Your task to perform on an android device: turn off priority inbox in the gmail app Image 0: 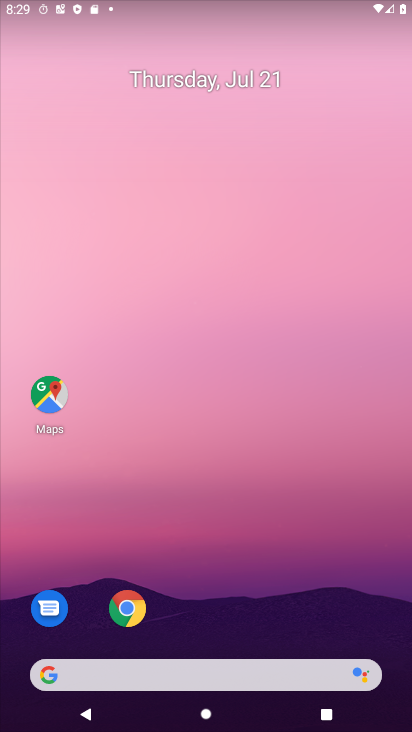
Step 0: drag from (259, 595) to (185, 11)
Your task to perform on an android device: turn off priority inbox in the gmail app Image 1: 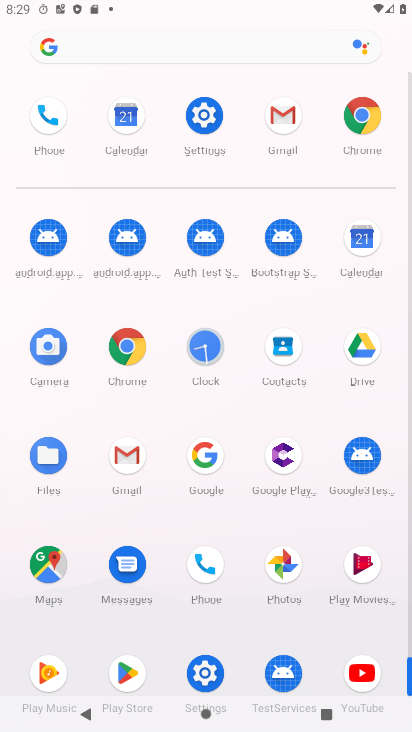
Step 1: click (284, 109)
Your task to perform on an android device: turn off priority inbox in the gmail app Image 2: 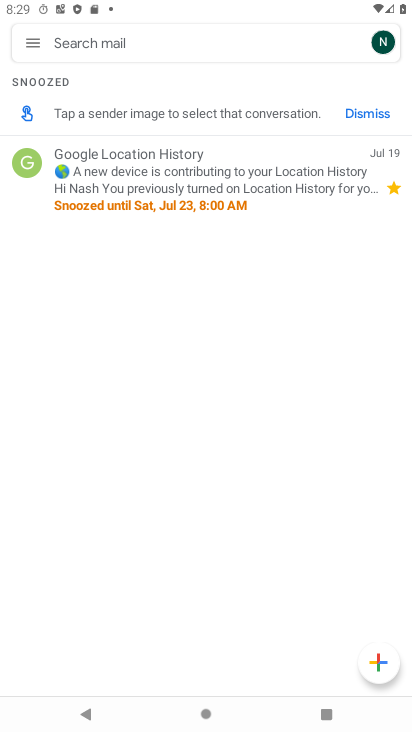
Step 2: click (37, 42)
Your task to perform on an android device: turn off priority inbox in the gmail app Image 3: 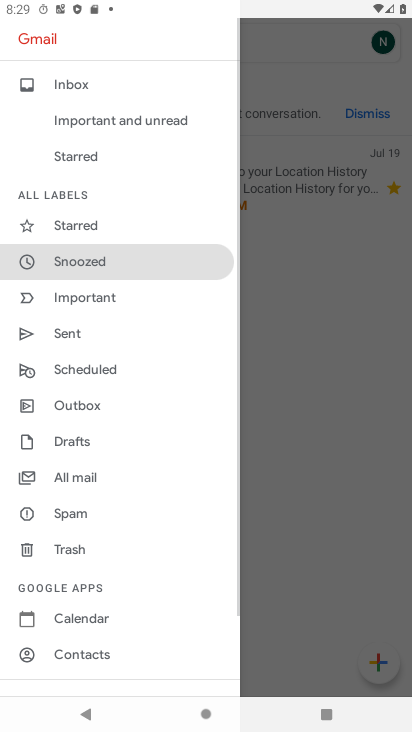
Step 3: drag from (72, 655) to (207, 146)
Your task to perform on an android device: turn off priority inbox in the gmail app Image 4: 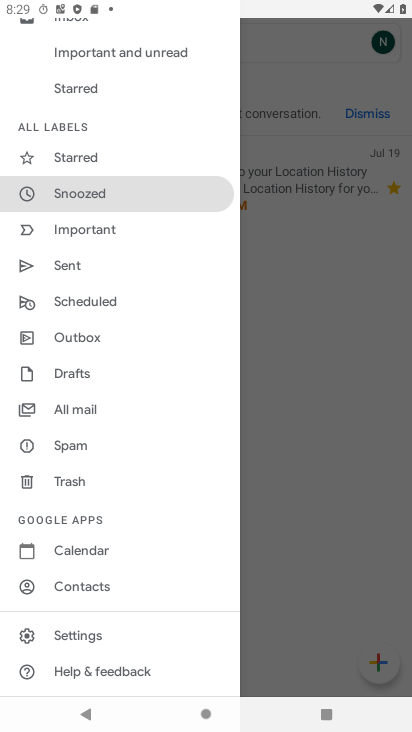
Step 4: click (20, 637)
Your task to perform on an android device: turn off priority inbox in the gmail app Image 5: 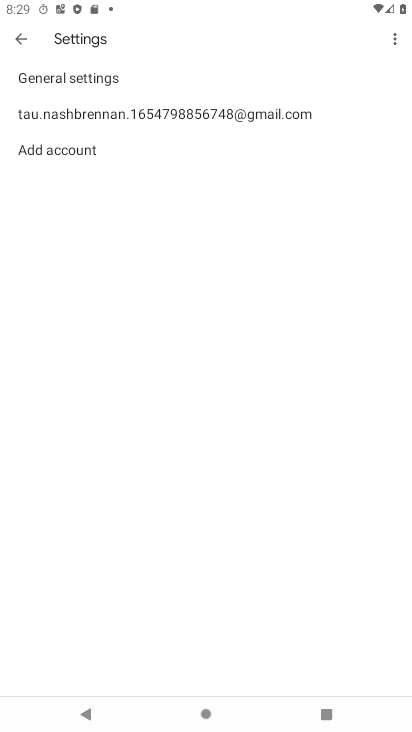
Step 5: click (196, 106)
Your task to perform on an android device: turn off priority inbox in the gmail app Image 6: 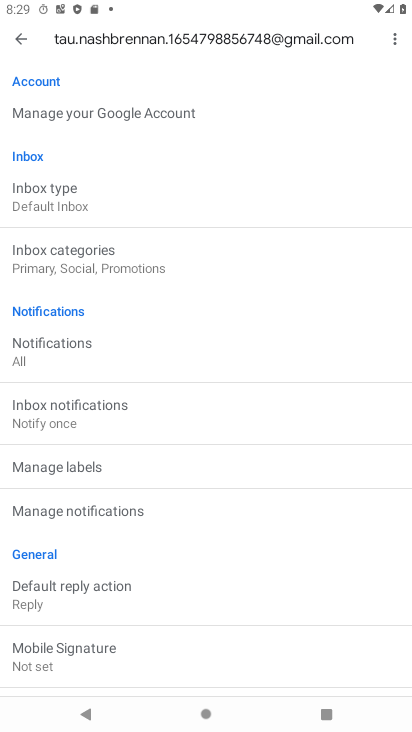
Step 6: click (54, 190)
Your task to perform on an android device: turn off priority inbox in the gmail app Image 7: 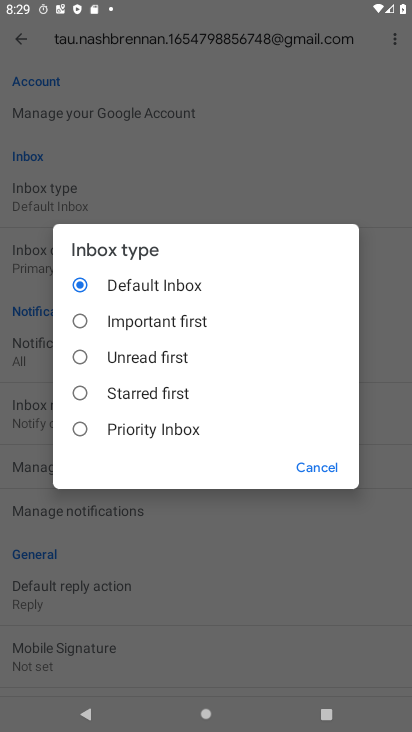
Step 7: click (145, 433)
Your task to perform on an android device: turn off priority inbox in the gmail app Image 8: 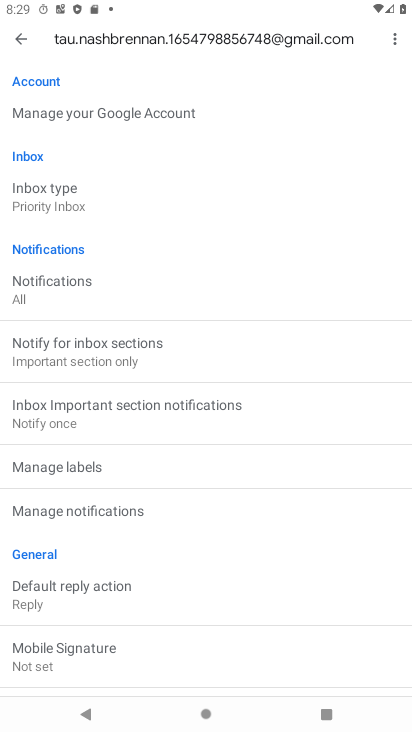
Step 8: task complete